Your task to perform on an android device: turn on translation in the chrome app Image 0: 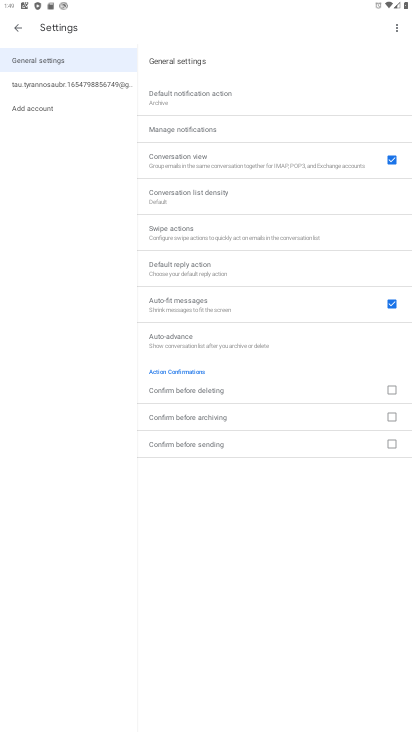
Step 0: press home button
Your task to perform on an android device: turn on translation in the chrome app Image 1: 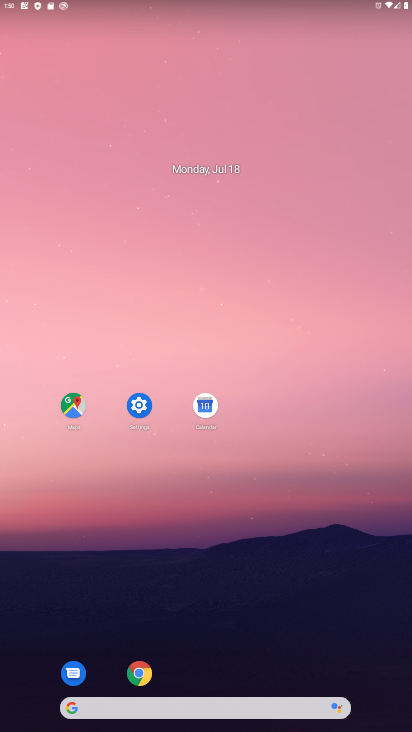
Step 1: click (137, 673)
Your task to perform on an android device: turn on translation in the chrome app Image 2: 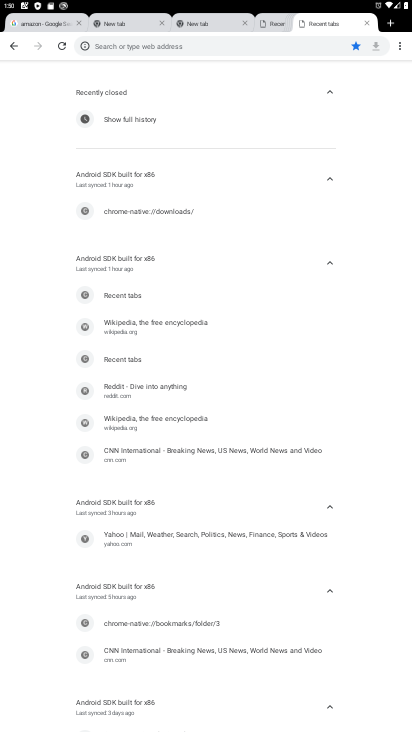
Step 2: click (398, 46)
Your task to perform on an android device: turn on translation in the chrome app Image 3: 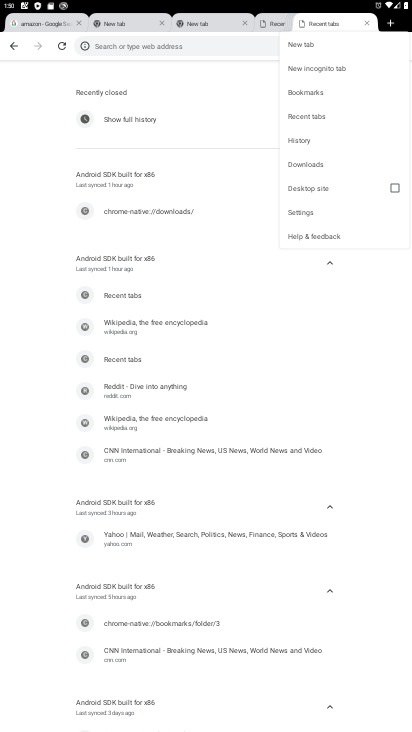
Step 3: click (289, 212)
Your task to perform on an android device: turn on translation in the chrome app Image 4: 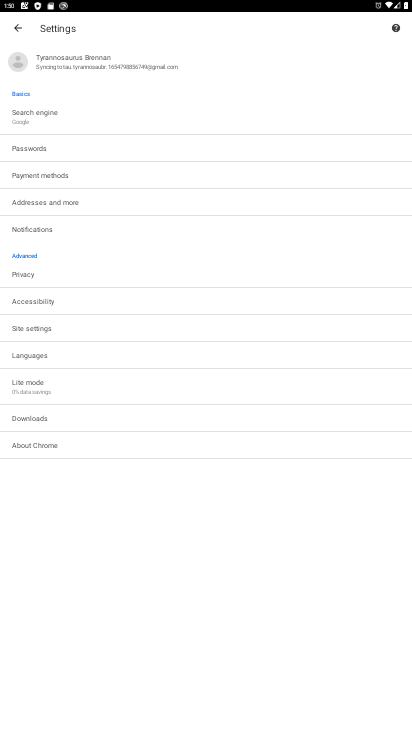
Step 4: click (74, 344)
Your task to perform on an android device: turn on translation in the chrome app Image 5: 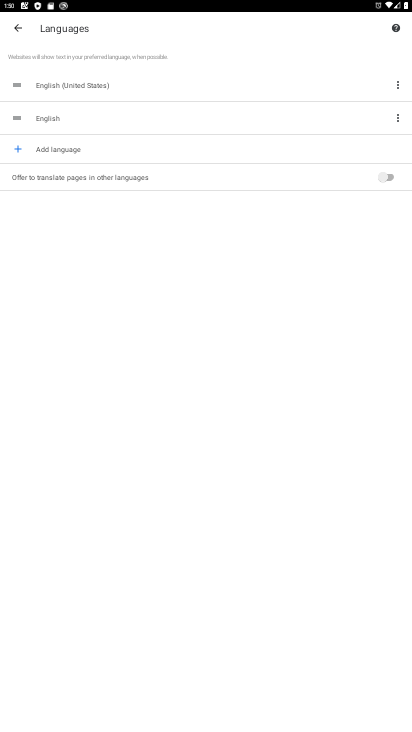
Step 5: click (385, 178)
Your task to perform on an android device: turn on translation in the chrome app Image 6: 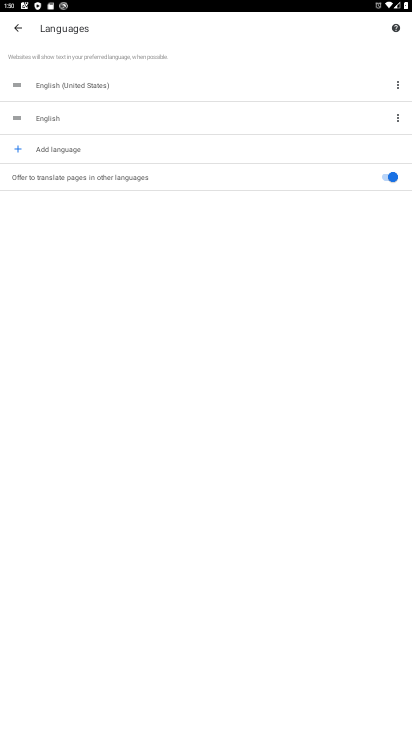
Step 6: task complete